Your task to perform on an android device: change the clock style Image 0: 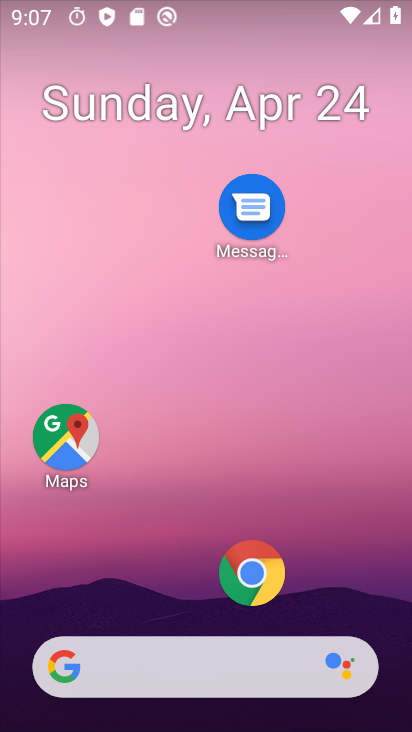
Step 0: drag from (161, 530) to (275, 15)
Your task to perform on an android device: change the clock style Image 1: 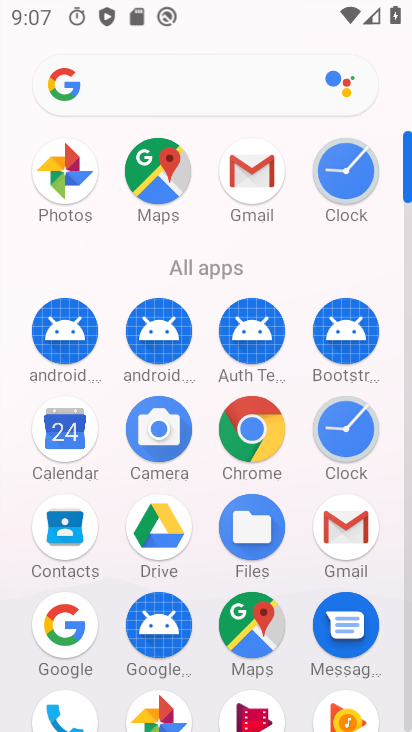
Step 1: click (358, 442)
Your task to perform on an android device: change the clock style Image 2: 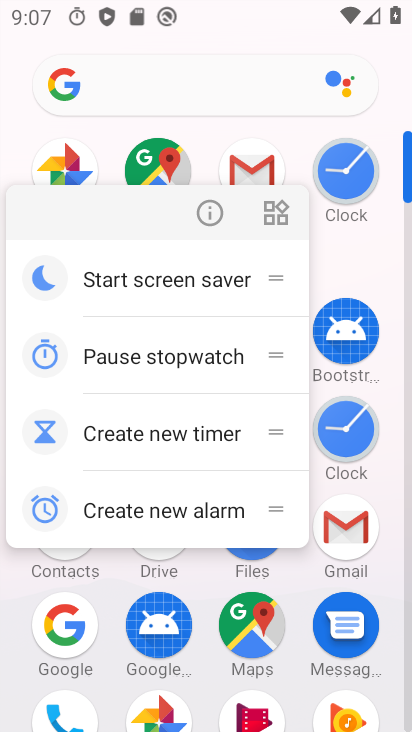
Step 2: click (358, 444)
Your task to perform on an android device: change the clock style Image 3: 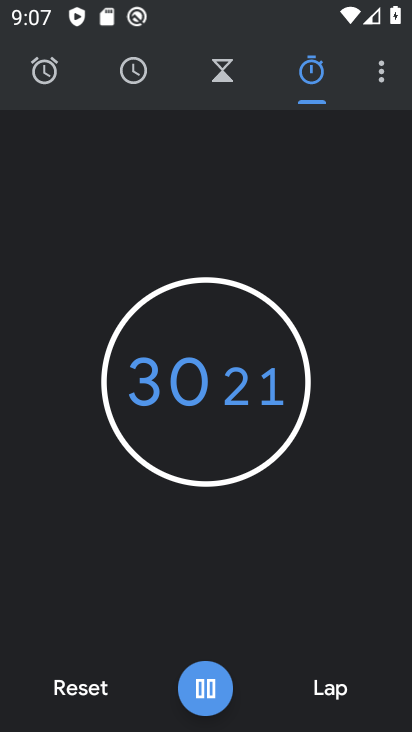
Step 3: click (378, 72)
Your task to perform on an android device: change the clock style Image 4: 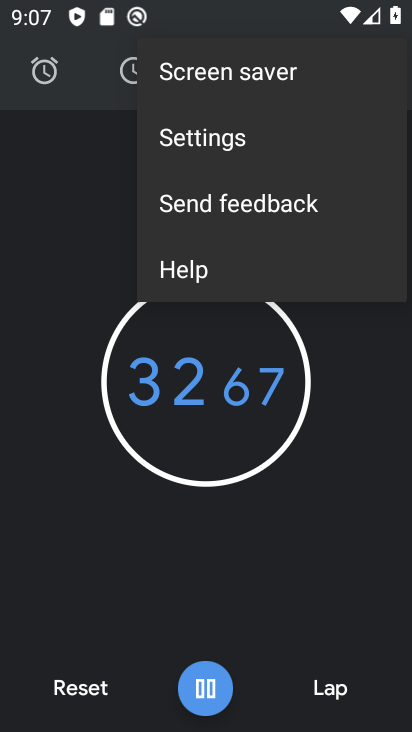
Step 4: click (215, 144)
Your task to perform on an android device: change the clock style Image 5: 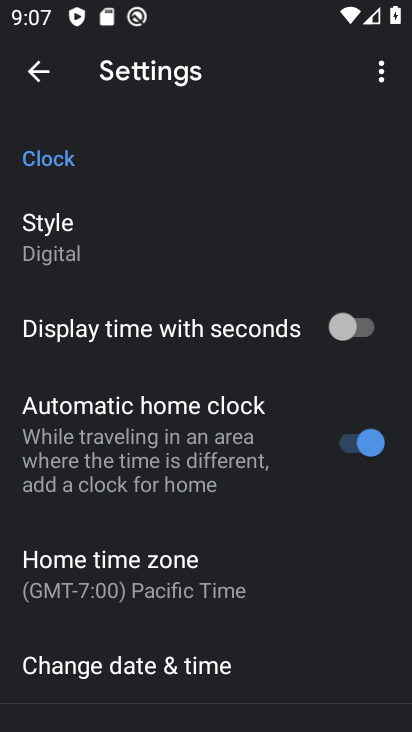
Step 5: click (83, 256)
Your task to perform on an android device: change the clock style Image 6: 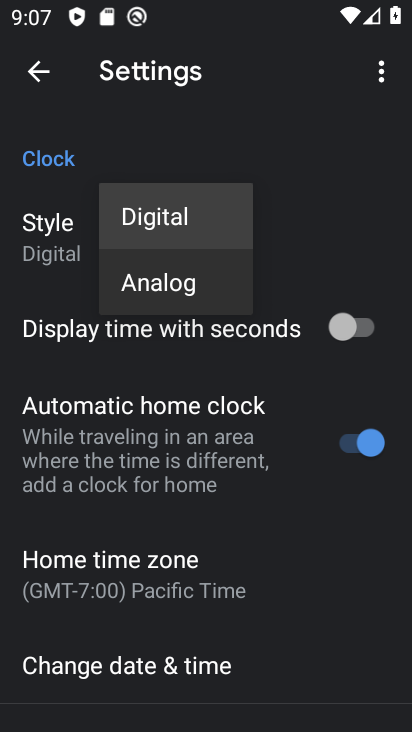
Step 6: click (167, 286)
Your task to perform on an android device: change the clock style Image 7: 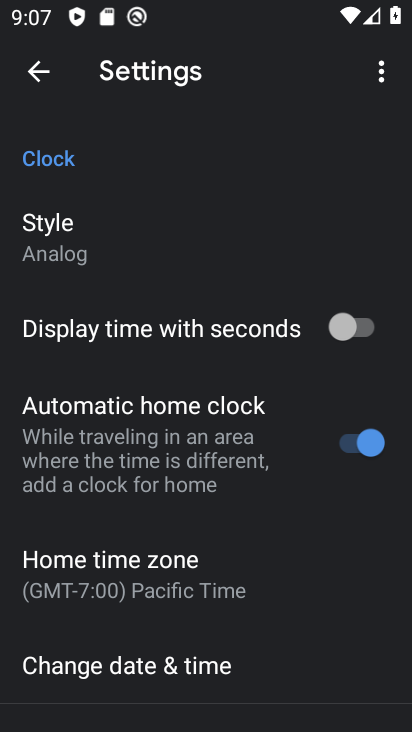
Step 7: task complete